Your task to perform on an android device: Open the map Image 0: 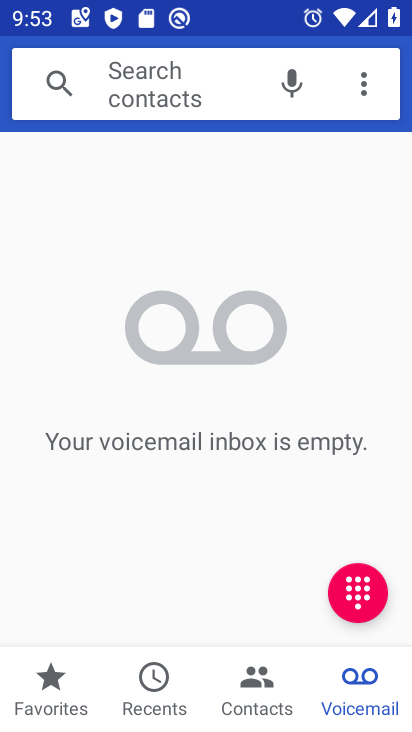
Step 0: press home button
Your task to perform on an android device: Open the map Image 1: 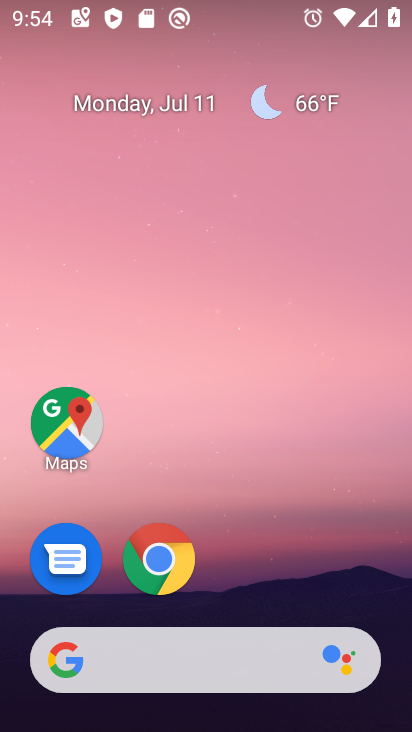
Step 1: drag from (330, 596) to (367, 151)
Your task to perform on an android device: Open the map Image 2: 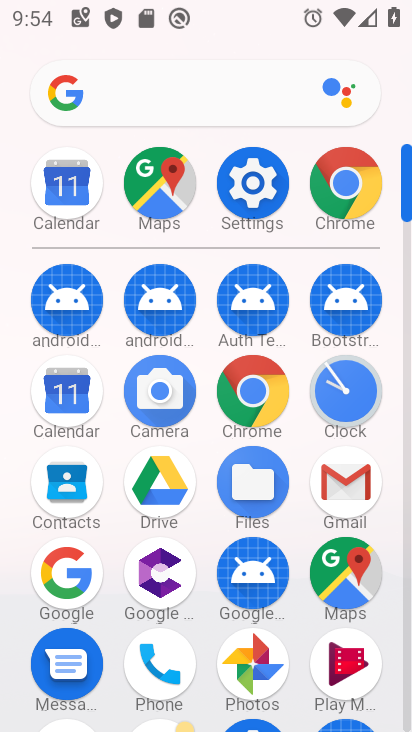
Step 2: click (361, 568)
Your task to perform on an android device: Open the map Image 3: 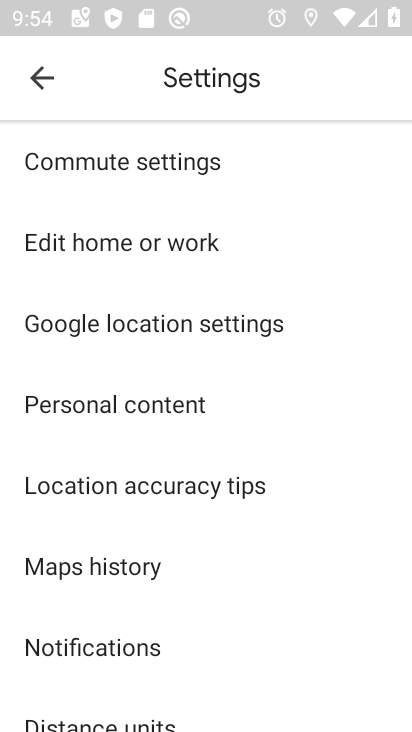
Step 3: task complete